Your task to perform on an android device: Search for pizza restaurants on Maps Image 0: 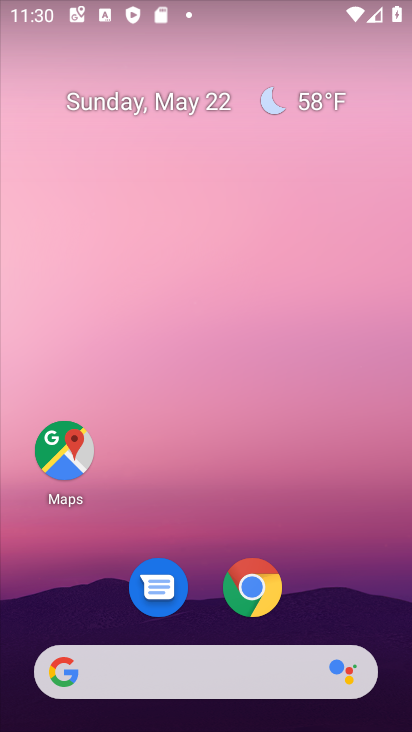
Step 0: click (52, 455)
Your task to perform on an android device: Search for pizza restaurants on Maps Image 1: 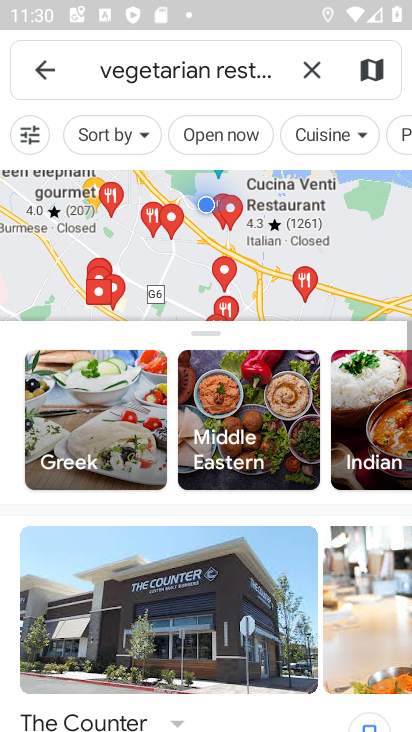
Step 1: click (312, 61)
Your task to perform on an android device: Search for pizza restaurants on Maps Image 2: 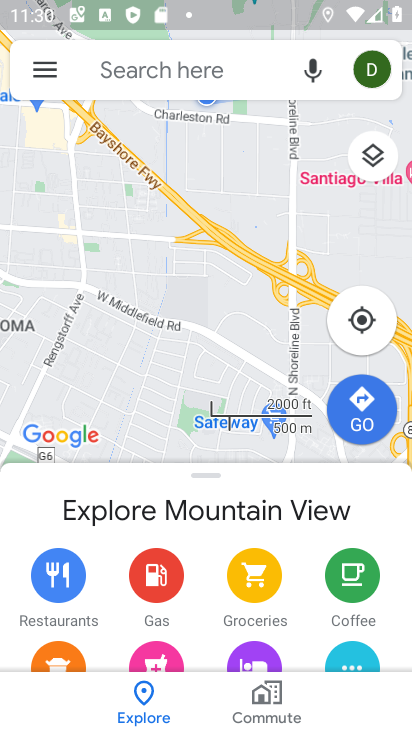
Step 2: click (239, 69)
Your task to perform on an android device: Search for pizza restaurants on Maps Image 3: 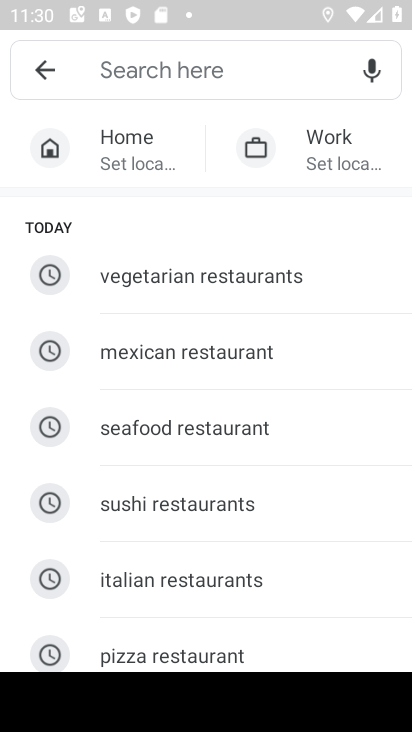
Step 3: click (231, 650)
Your task to perform on an android device: Search for pizza restaurants on Maps Image 4: 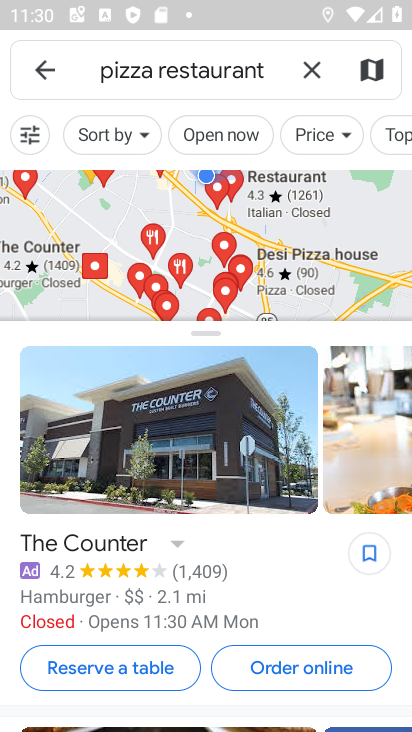
Step 4: task complete